Your task to perform on an android device: View the shopping cart on bestbuy. Add "usb-b" to the cart on bestbuy, then select checkout. Image 0: 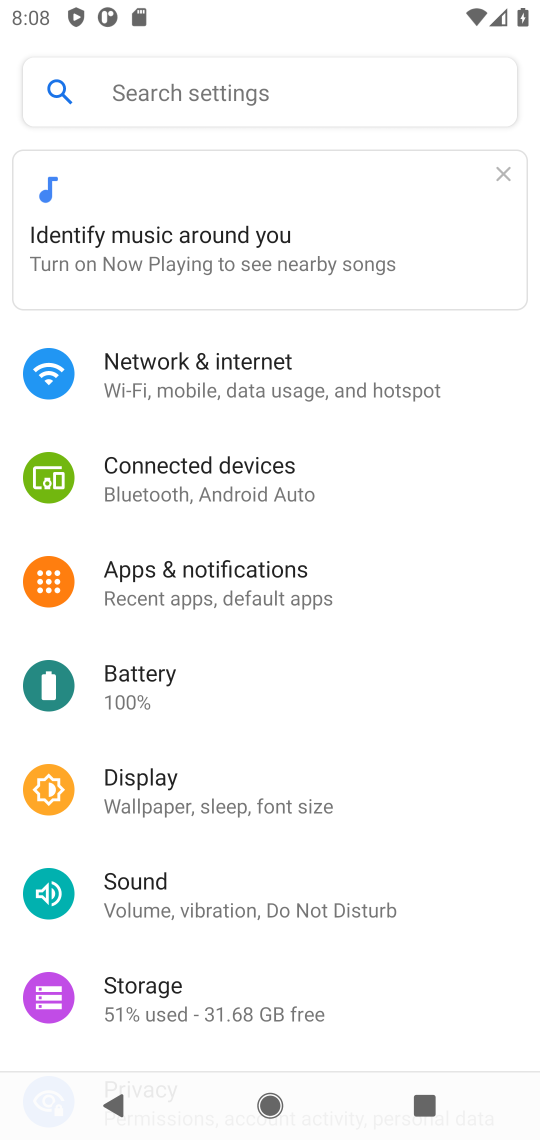
Step 0: press home button
Your task to perform on an android device: View the shopping cart on bestbuy. Add "usb-b" to the cart on bestbuy, then select checkout. Image 1: 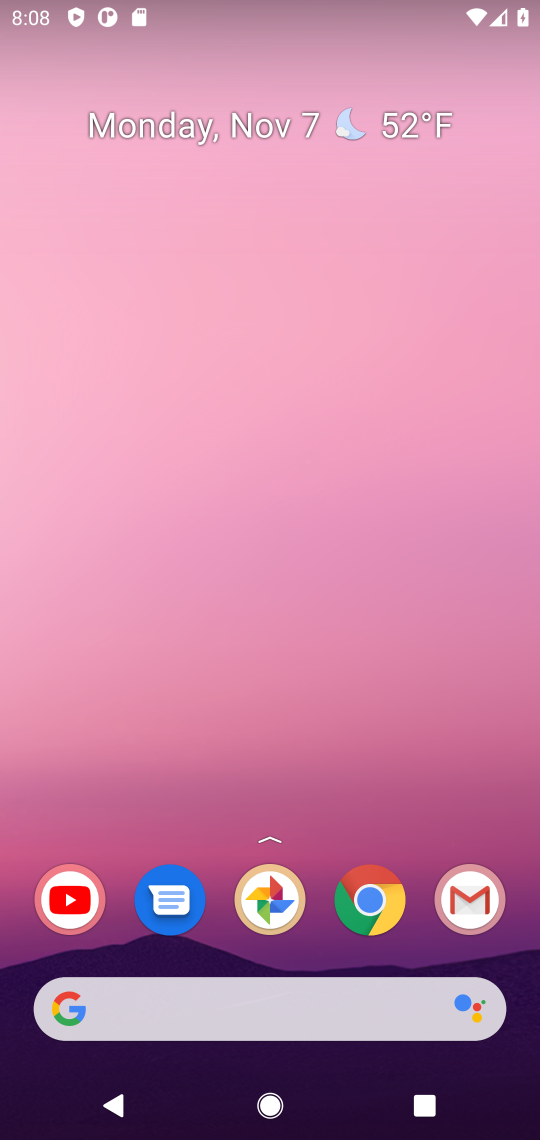
Step 1: click (198, 982)
Your task to perform on an android device: View the shopping cart on bestbuy. Add "usb-b" to the cart on bestbuy, then select checkout. Image 2: 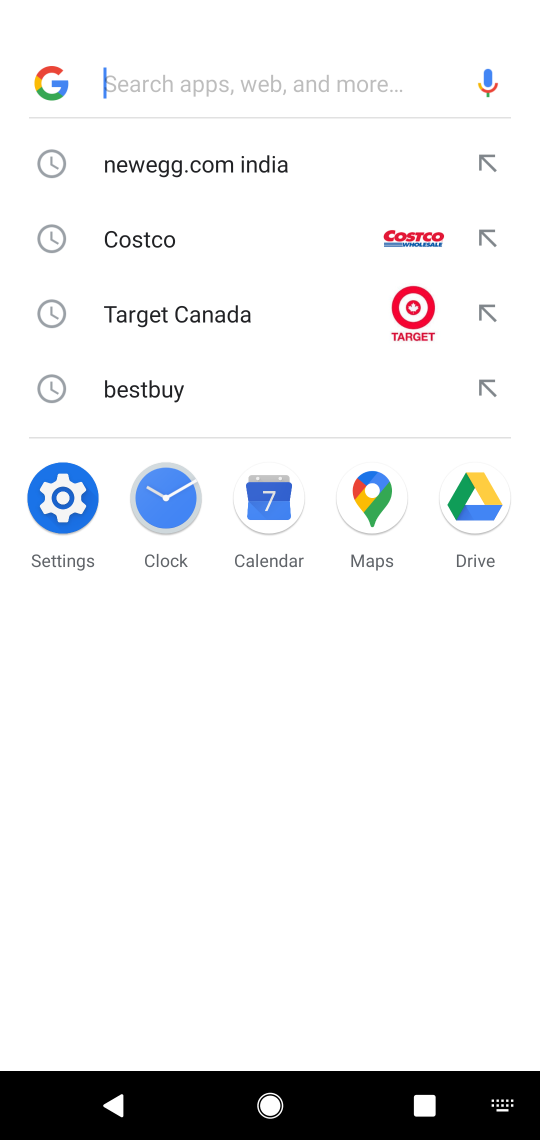
Step 2: task complete